Your task to perform on an android device: open app "Booking.com: Hotels and more" (install if not already installed) and go to login screen Image 0: 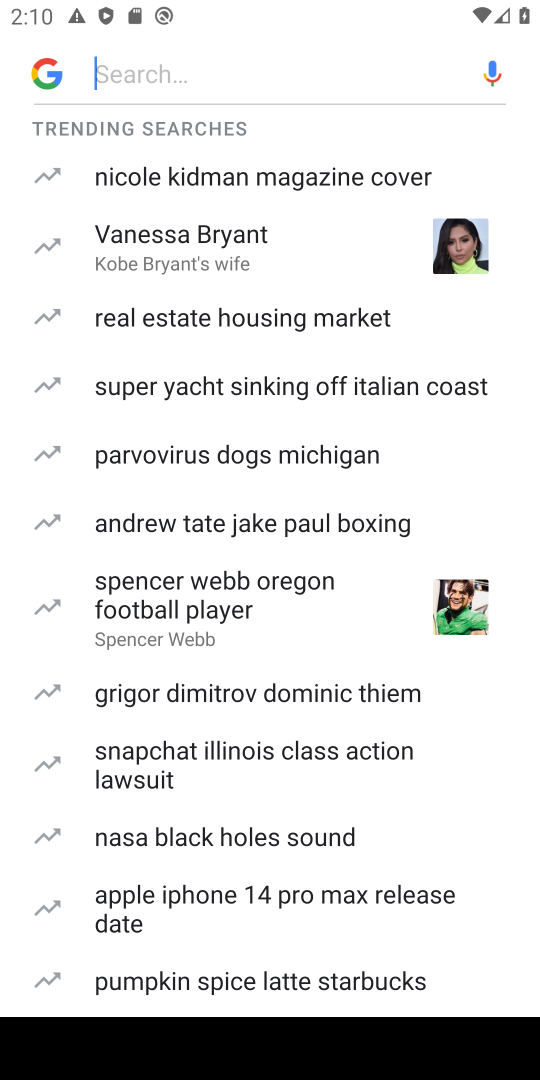
Step 0: press back button
Your task to perform on an android device: open app "Booking.com: Hotels and more" (install if not already installed) and go to login screen Image 1: 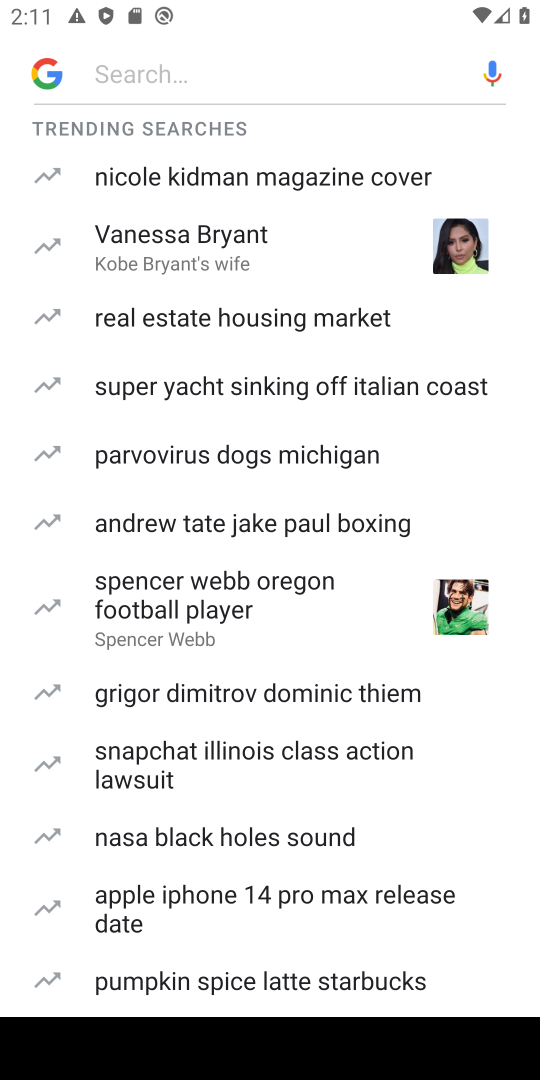
Step 1: press back button
Your task to perform on an android device: open app "Booking.com: Hotels and more" (install if not already installed) and go to login screen Image 2: 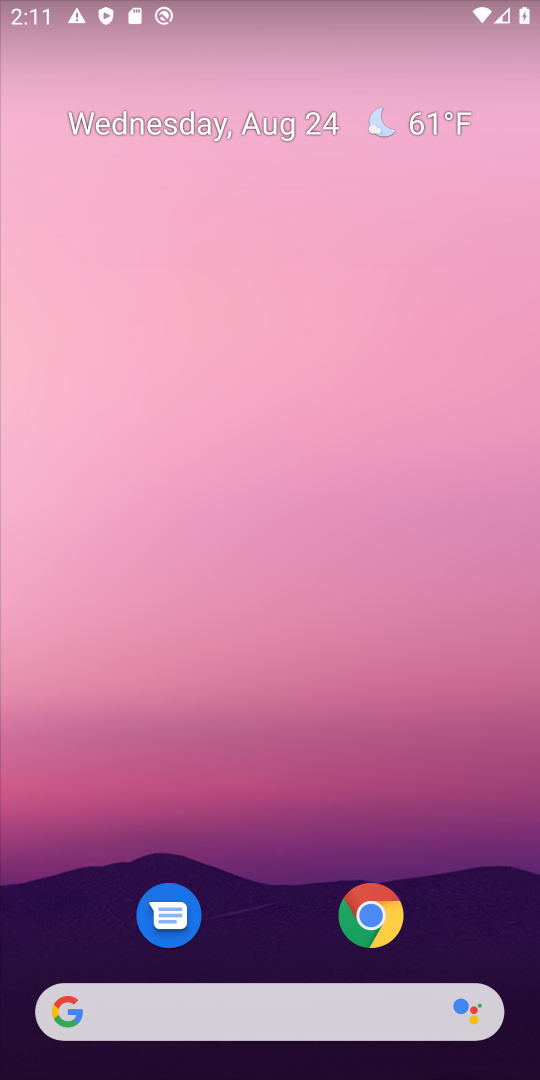
Step 2: drag from (274, 864) to (265, 112)
Your task to perform on an android device: open app "Booking.com: Hotels and more" (install if not already installed) and go to login screen Image 3: 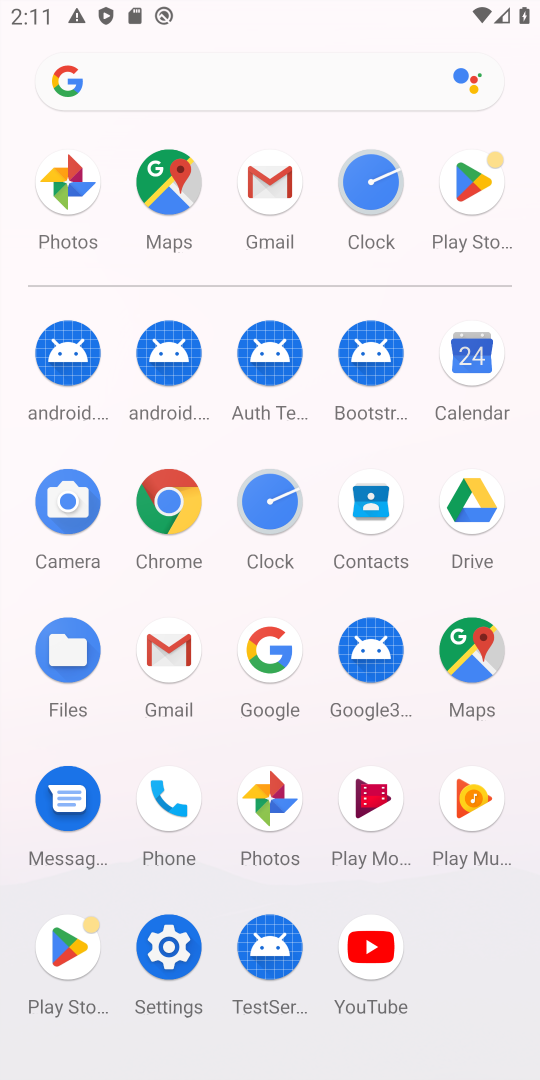
Step 3: click (459, 170)
Your task to perform on an android device: open app "Booking.com: Hotels and more" (install if not already installed) and go to login screen Image 4: 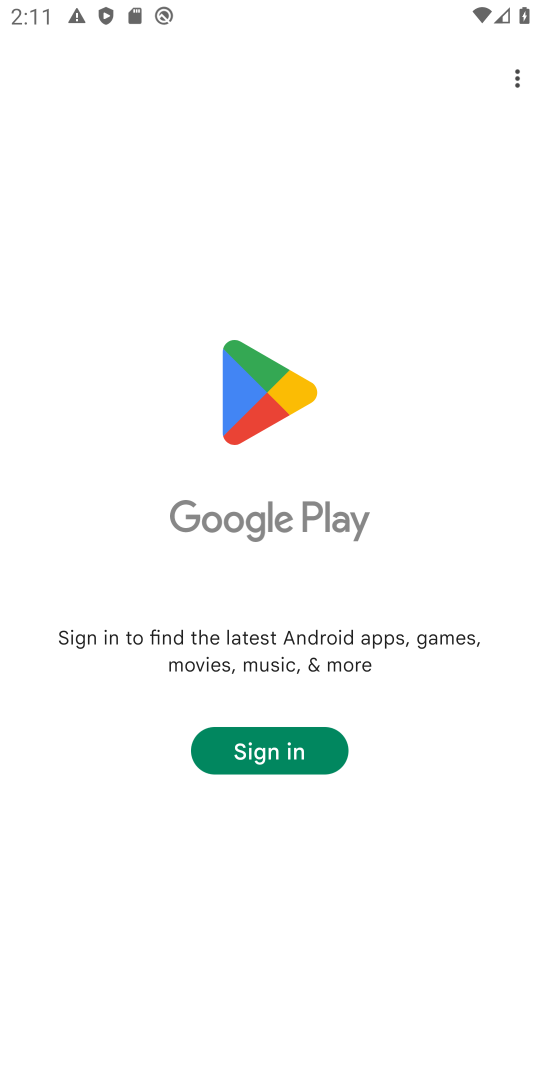
Step 4: task complete